Your task to perform on an android device: open app "LinkedIn" Image 0: 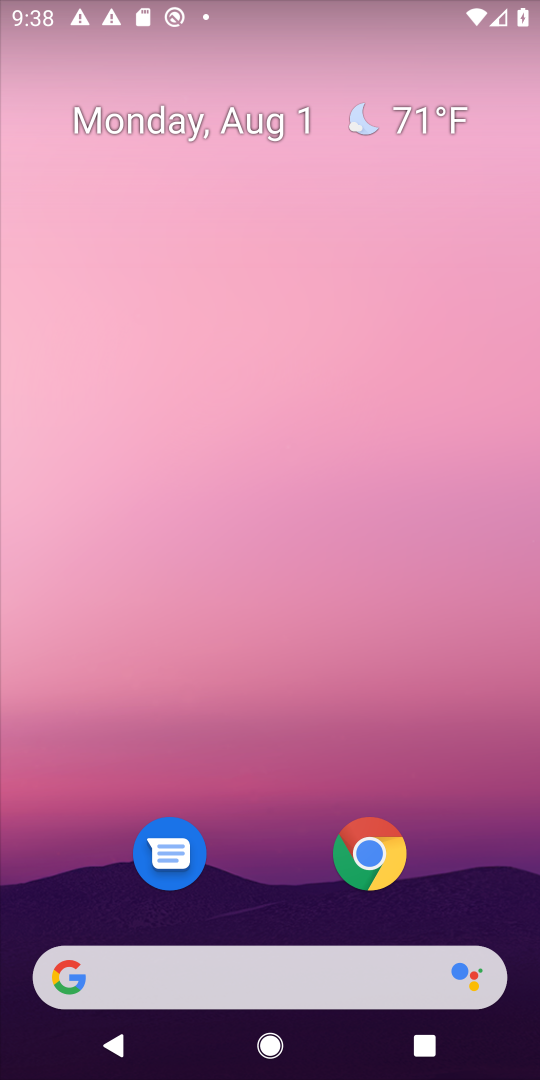
Step 0: drag from (264, 921) to (314, 294)
Your task to perform on an android device: open app "LinkedIn" Image 1: 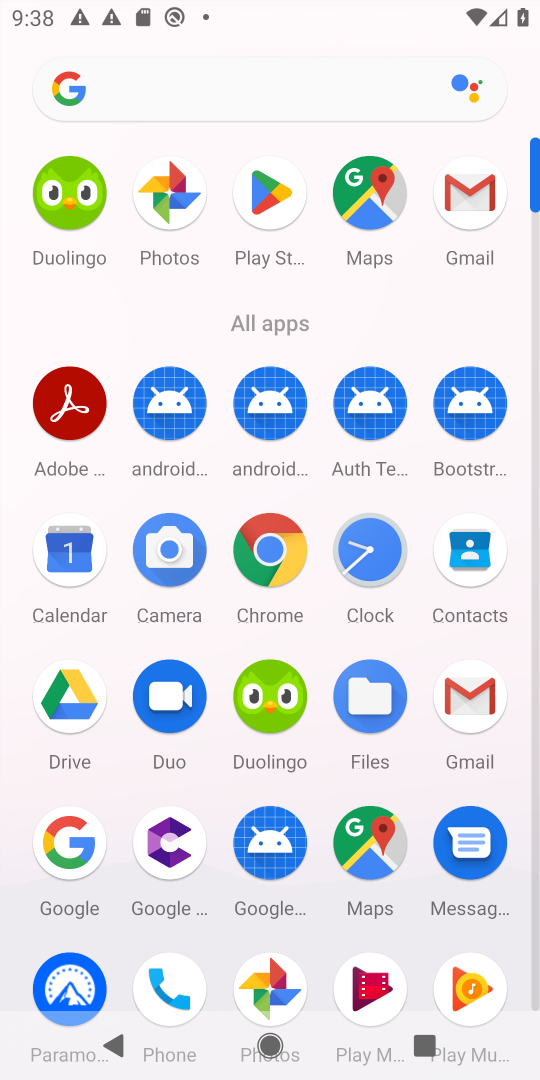
Step 1: drag from (327, 917) to (304, 410)
Your task to perform on an android device: open app "LinkedIn" Image 2: 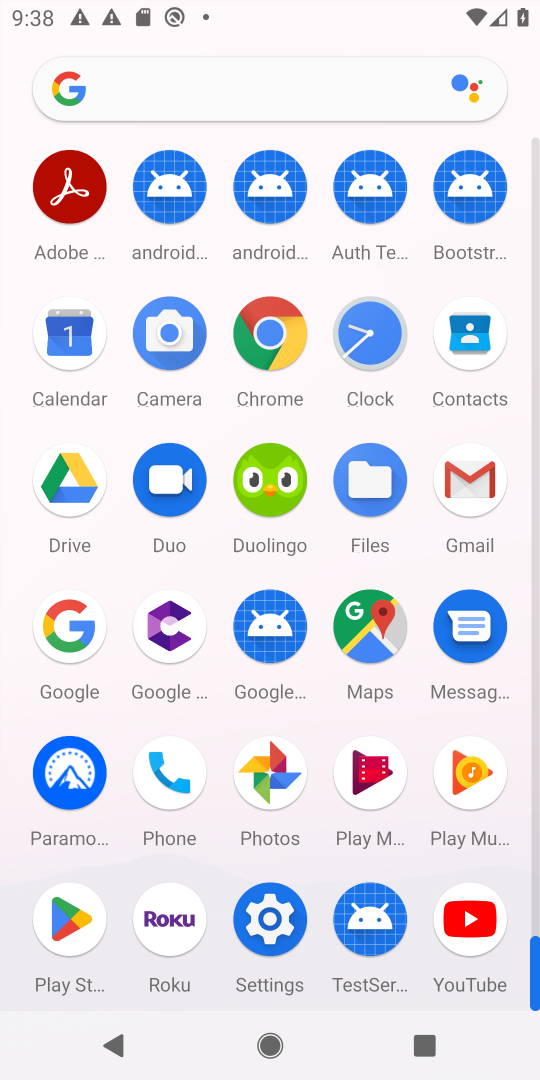
Step 2: click (74, 924)
Your task to perform on an android device: open app "LinkedIn" Image 3: 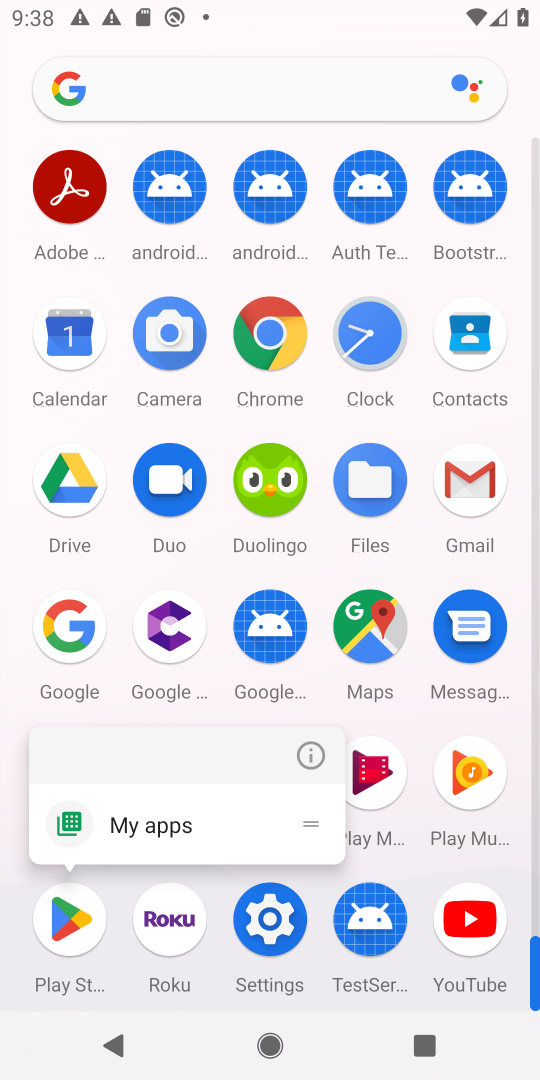
Step 3: click (307, 743)
Your task to perform on an android device: open app "LinkedIn" Image 4: 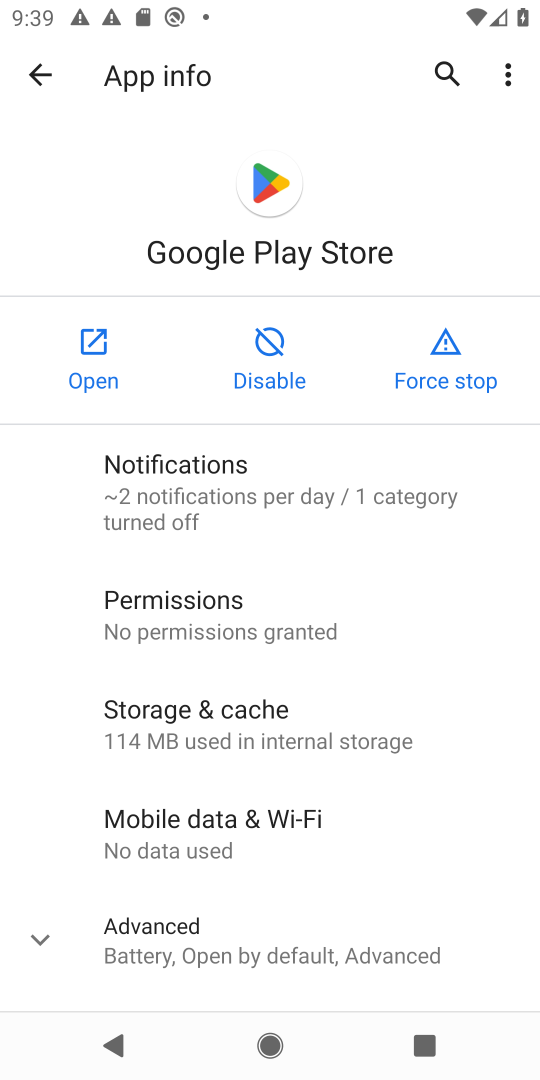
Step 4: click (78, 351)
Your task to perform on an android device: open app "LinkedIn" Image 5: 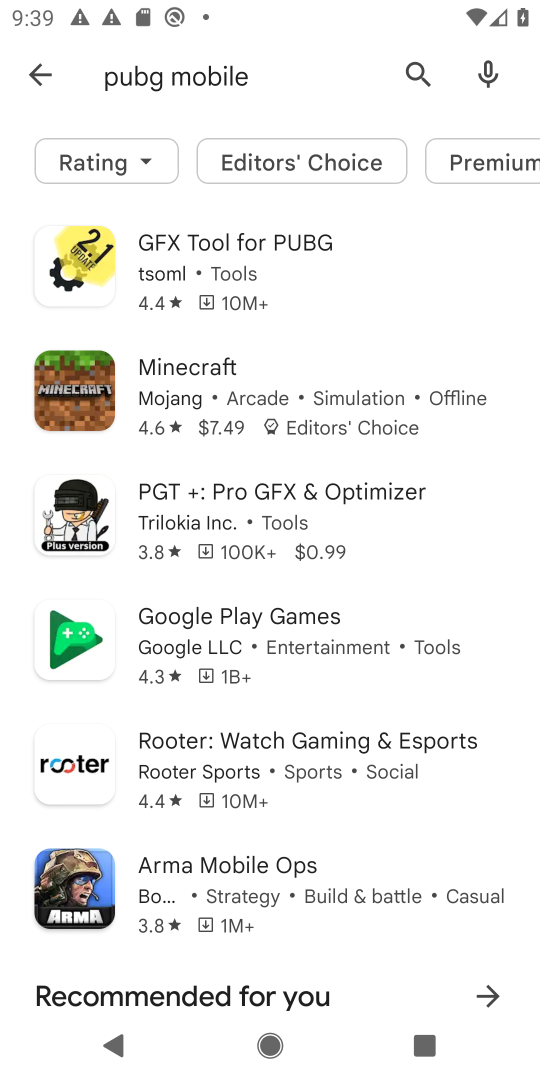
Step 5: click (416, 88)
Your task to perform on an android device: open app "LinkedIn" Image 6: 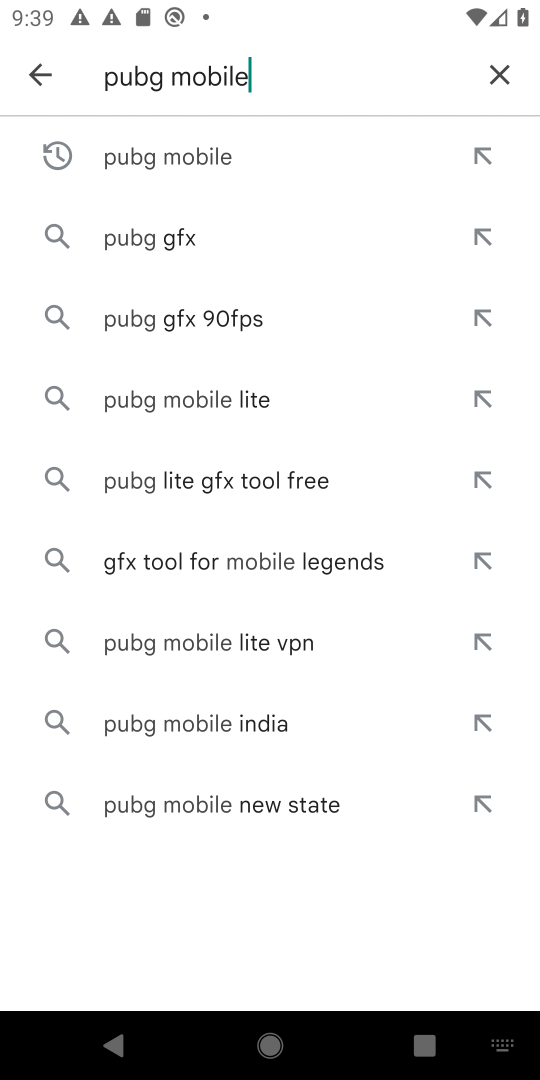
Step 6: click (492, 64)
Your task to perform on an android device: open app "LinkedIn" Image 7: 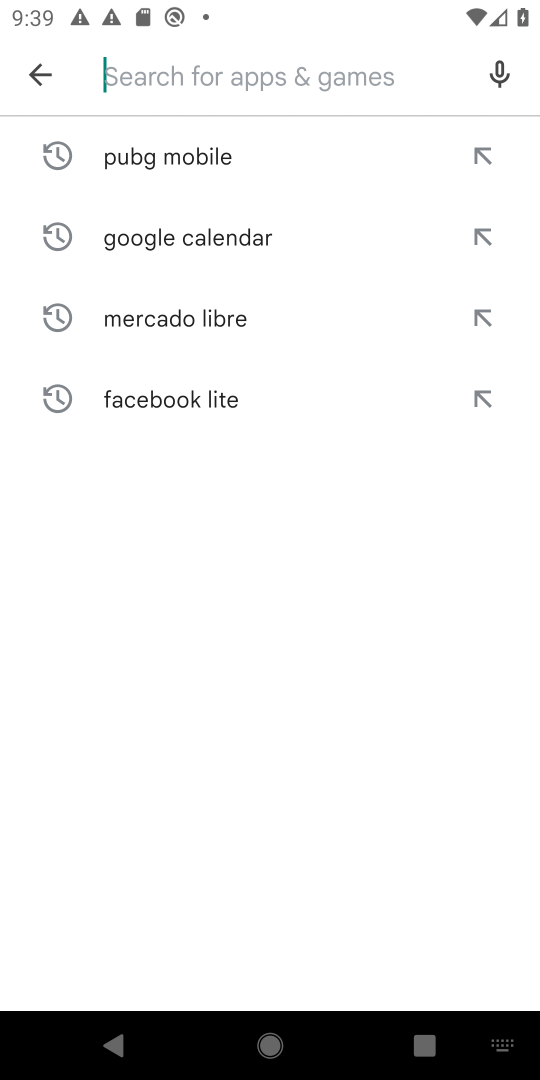
Step 7: type "LinkedIn"
Your task to perform on an android device: open app "LinkedIn" Image 8: 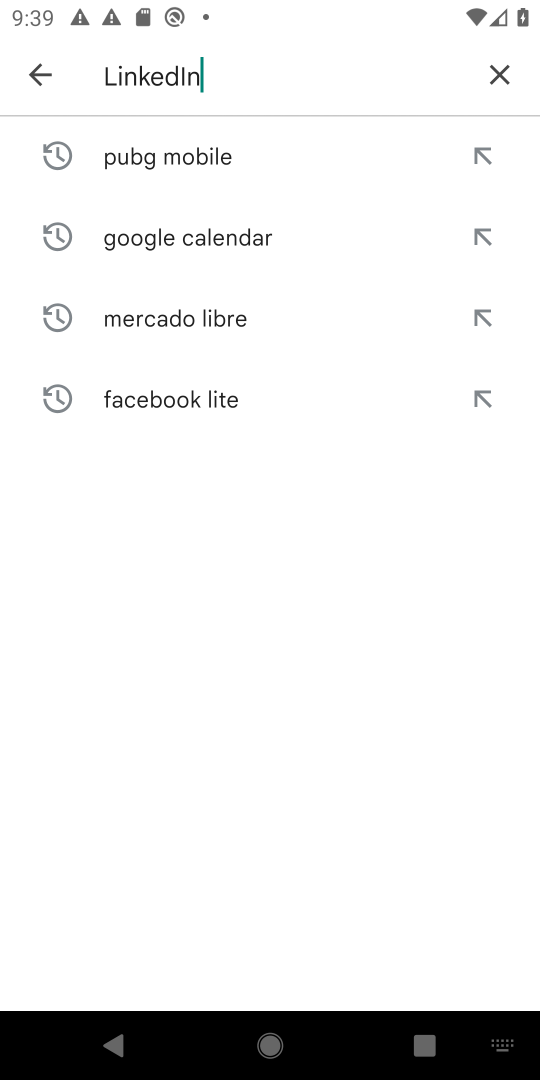
Step 8: type ""
Your task to perform on an android device: open app "LinkedIn" Image 9: 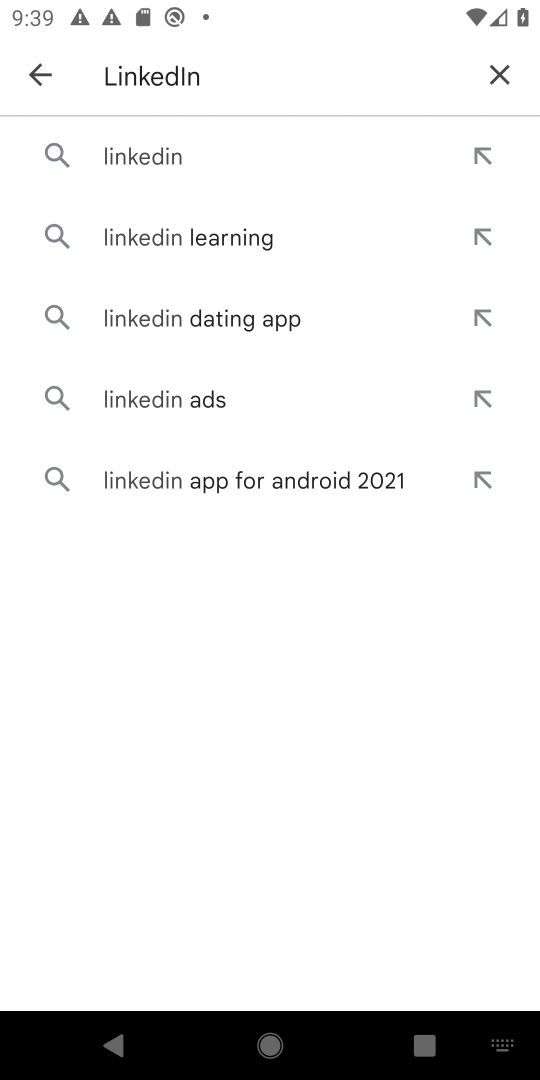
Step 9: click (175, 147)
Your task to perform on an android device: open app "LinkedIn" Image 10: 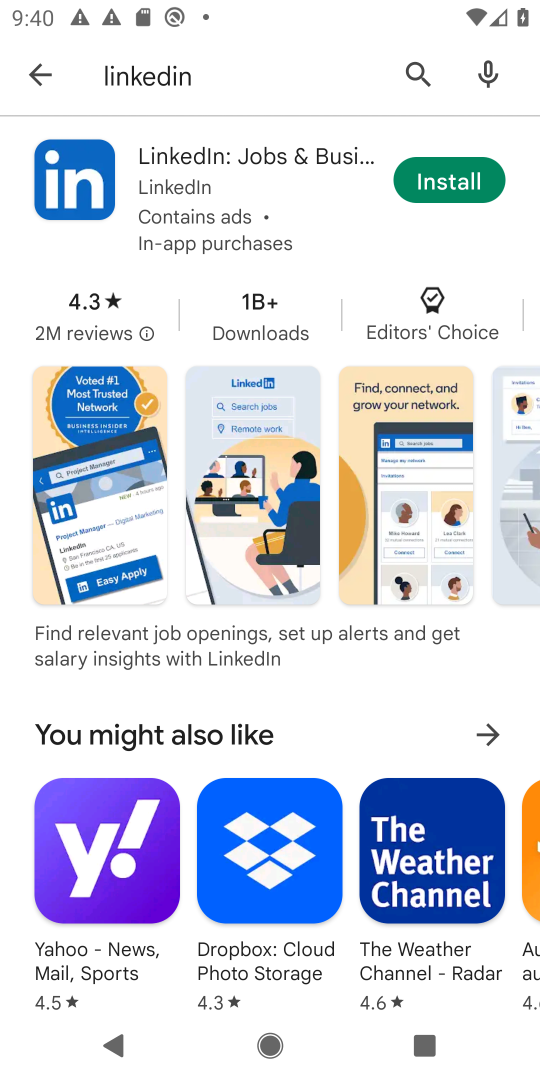
Step 10: click (244, 171)
Your task to perform on an android device: open app "LinkedIn" Image 11: 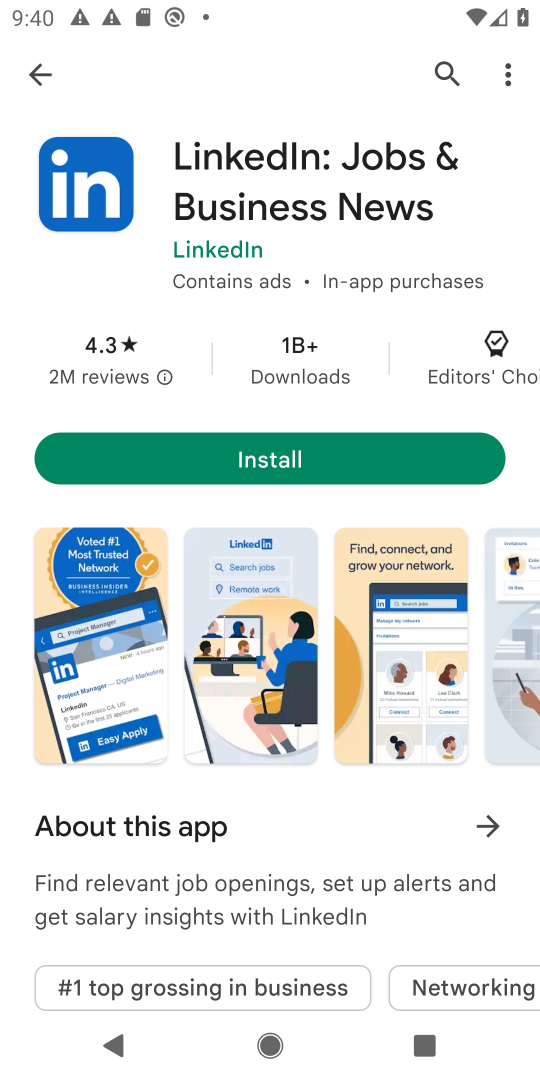
Step 11: drag from (321, 194) to (385, 806)
Your task to perform on an android device: open app "LinkedIn" Image 12: 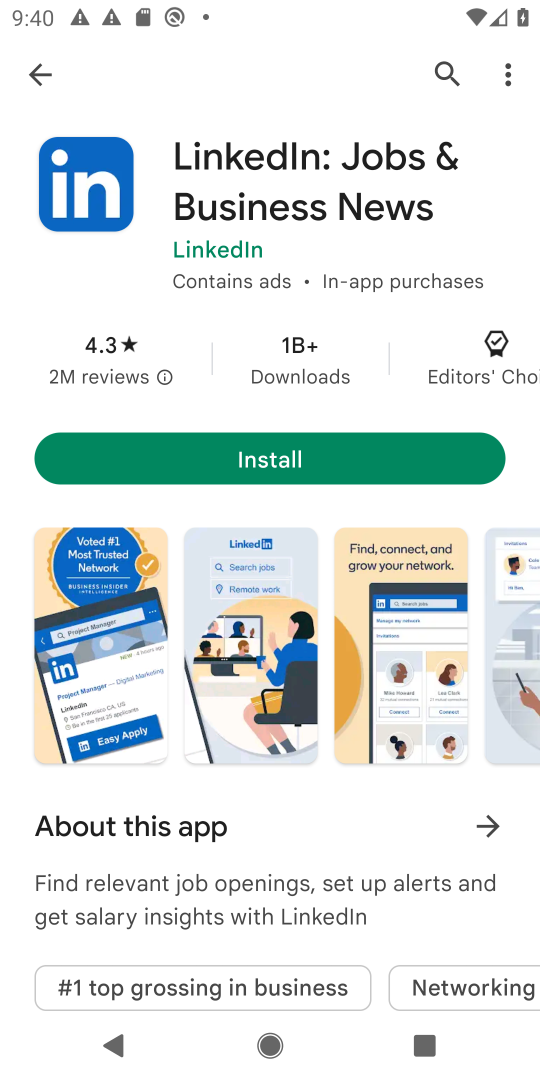
Step 12: drag from (274, 864) to (298, 278)
Your task to perform on an android device: open app "LinkedIn" Image 13: 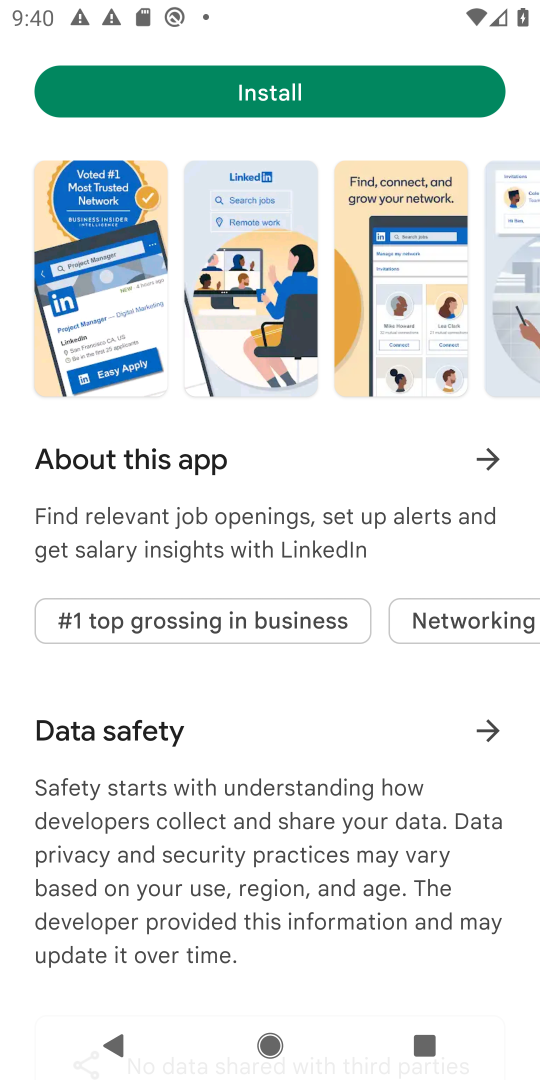
Step 13: drag from (302, 187) to (310, 912)
Your task to perform on an android device: open app "LinkedIn" Image 14: 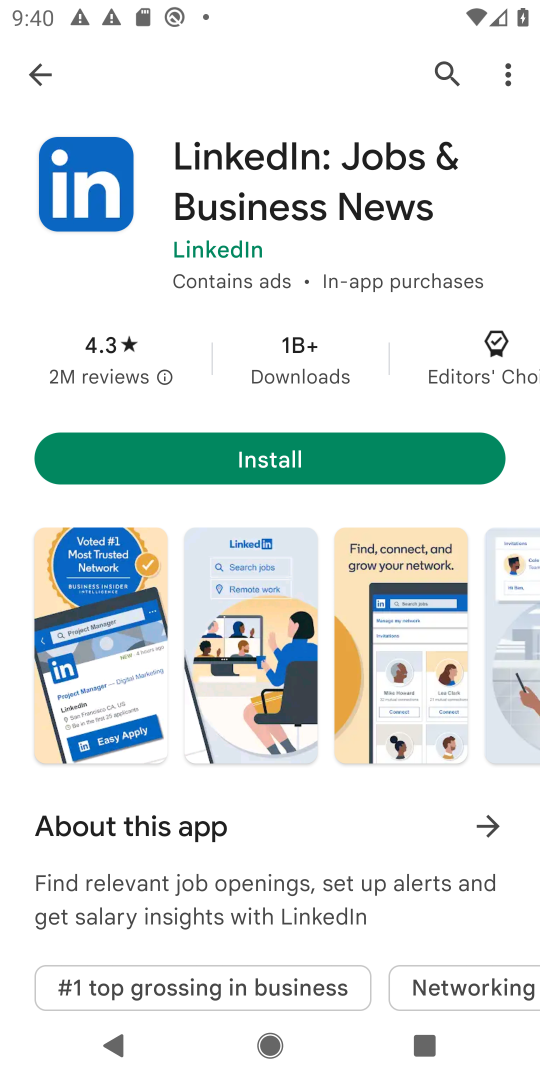
Step 14: drag from (325, 221) to (430, 1001)
Your task to perform on an android device: open app "LinkedIn" Image 15: 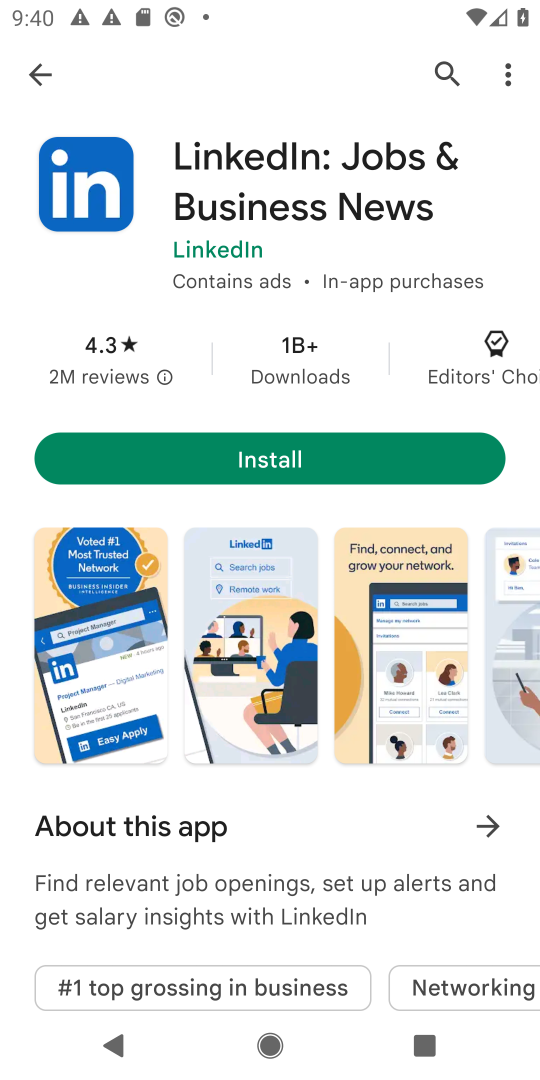
Step 15: drag from (344, 255) to (366, 808)
Your task to perform on an android device: open app "LinkedIn" Image 16: 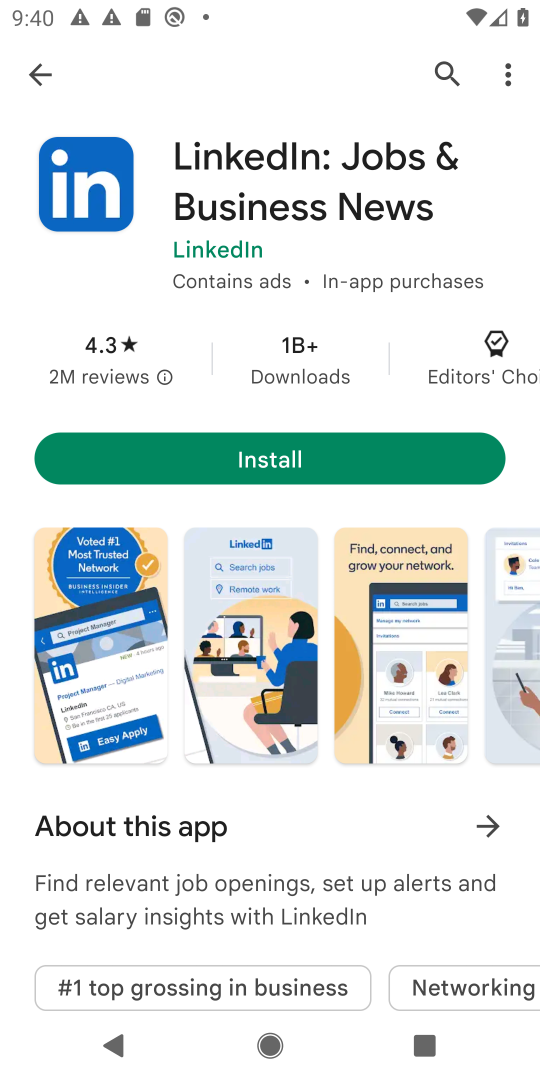
Step 16: drag from (294, 379) to (379, 1041)
Your task to perform on an android device: open app "LinkedIn" Image 17: 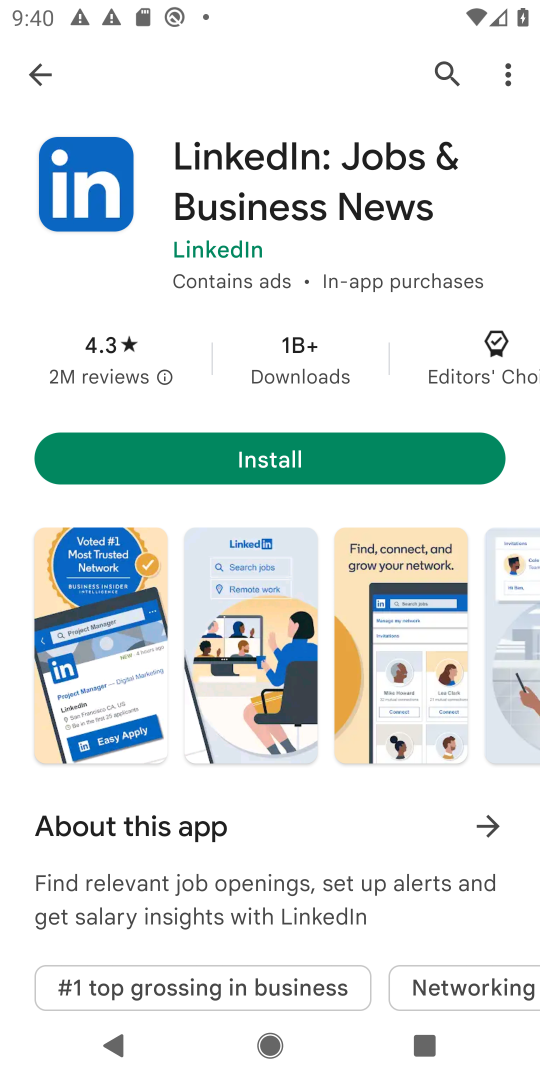
Step 17: drag from (337, 220) to (409, 1069)
Your task to perform on an android device: open app "LinkedIn" Image 18: 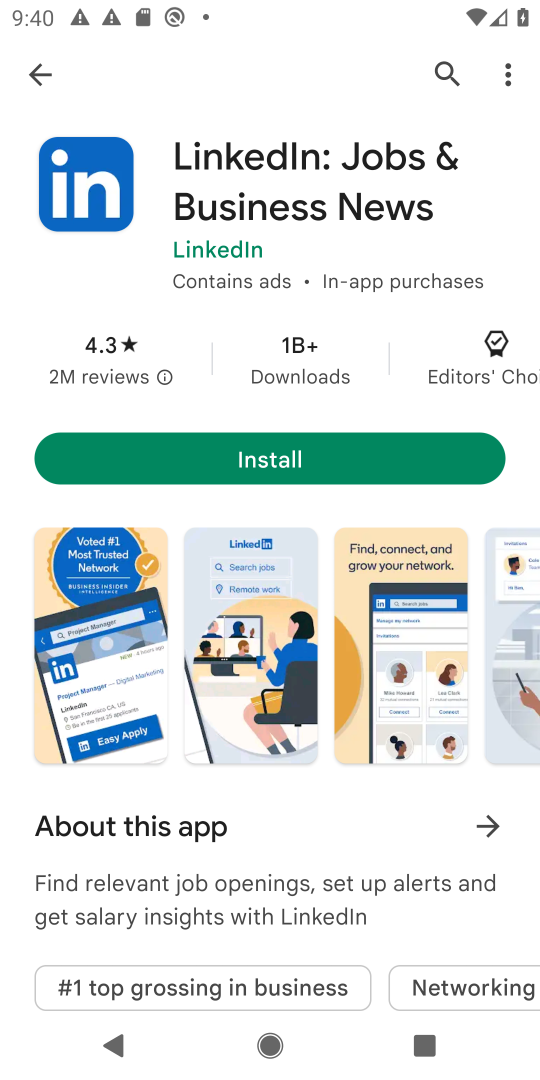
Step 18: drag from (347, 182) to (456, 1053)
Your task to perform on an android device: open app "LinkedIn" Image 19: 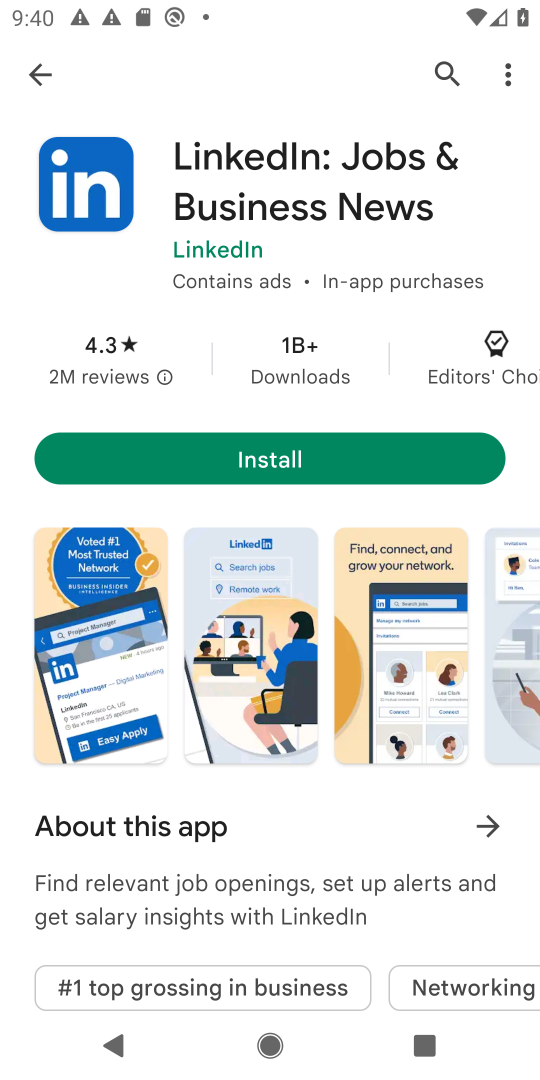
Step 19: drag from (347, 226) to (379, 757)
Your task to perform on an android device: open app "LinkedIn" Image 20: 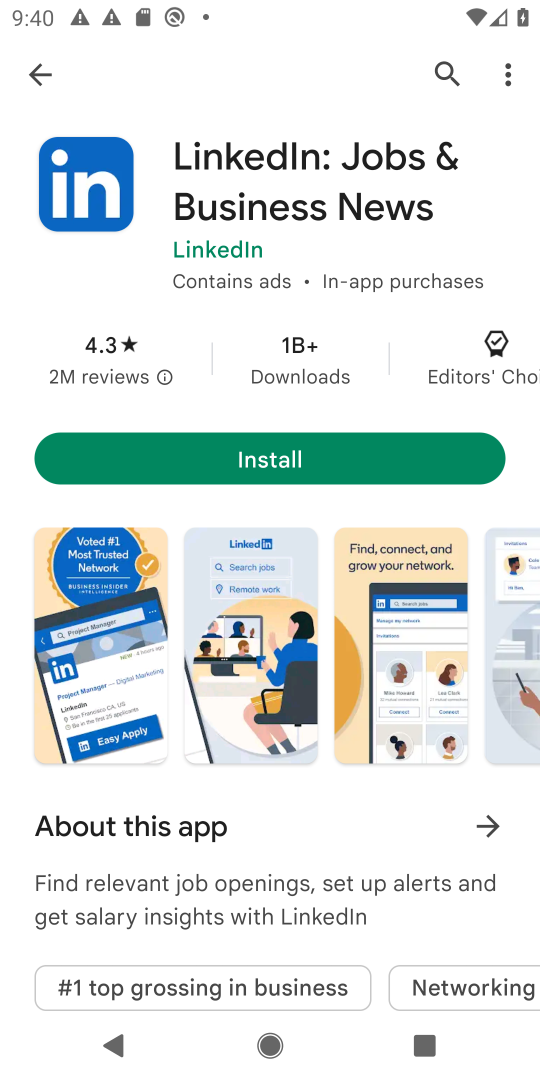
Step 20: drag from (358, 663) to (369, 832)
Your task to perform on an android device: open app "LinkedIn" Image 21: 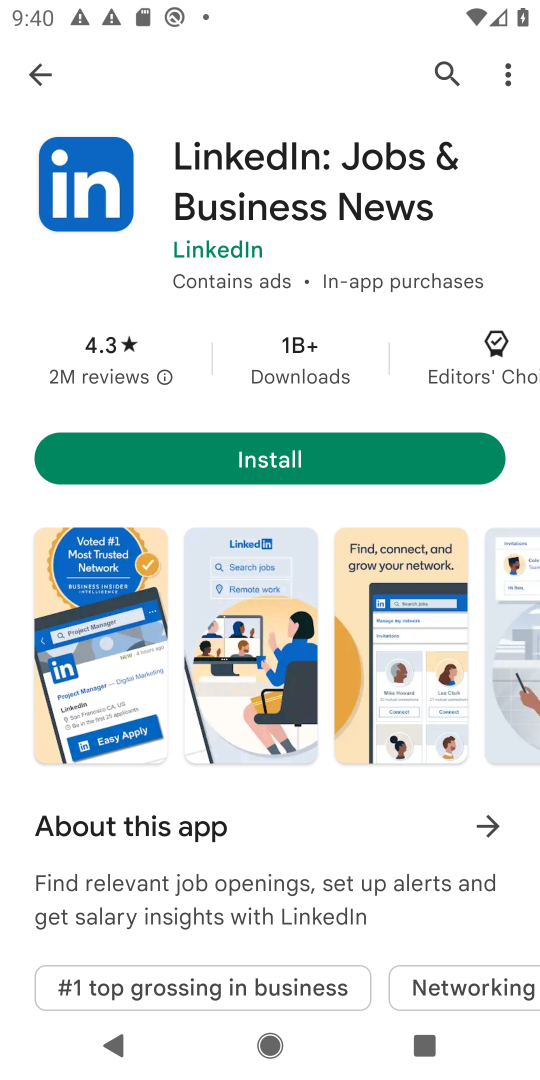
Step 21: drag from (335, 176) to (309, 1078)
Your task to perform on an android device: open app "LinkedIn" Image 22: 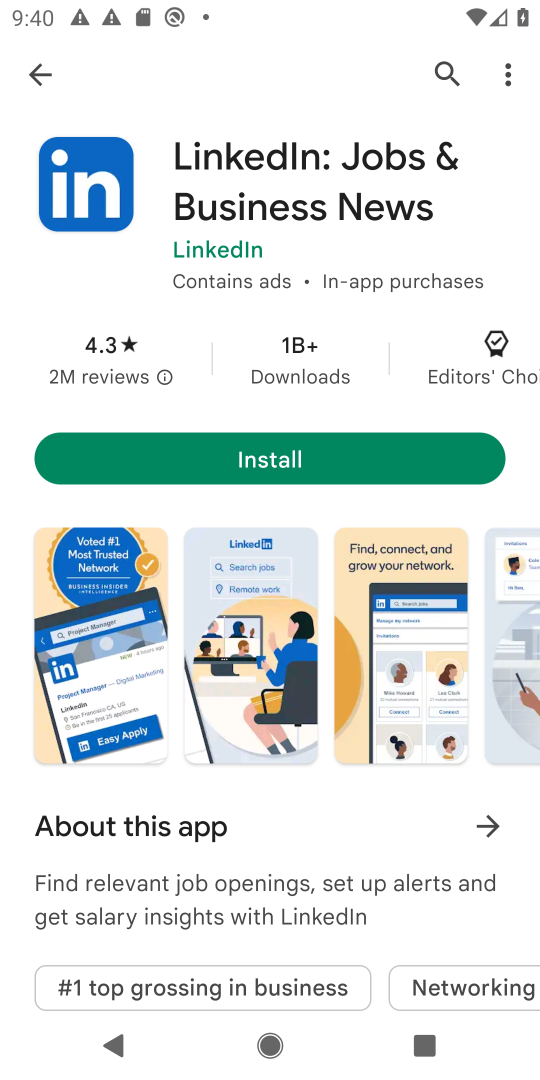
Step 22: click (453, 70)
Your task to perform on an android device: open app "LinkedIn" Image 23: 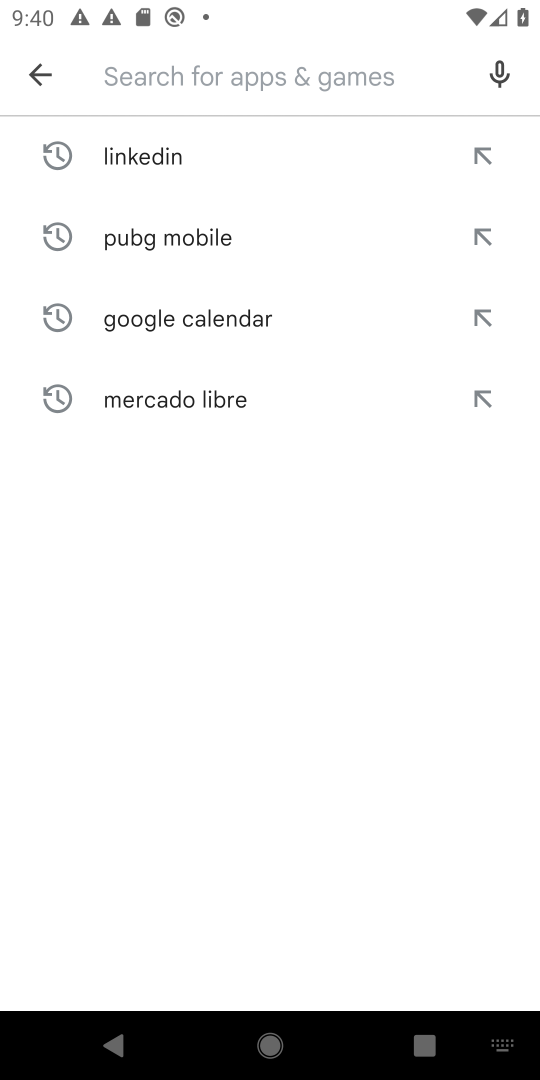
Step 23: type "LinkedIn"
Your task to perform on an android device: open app "LinkedIn" Image 24: 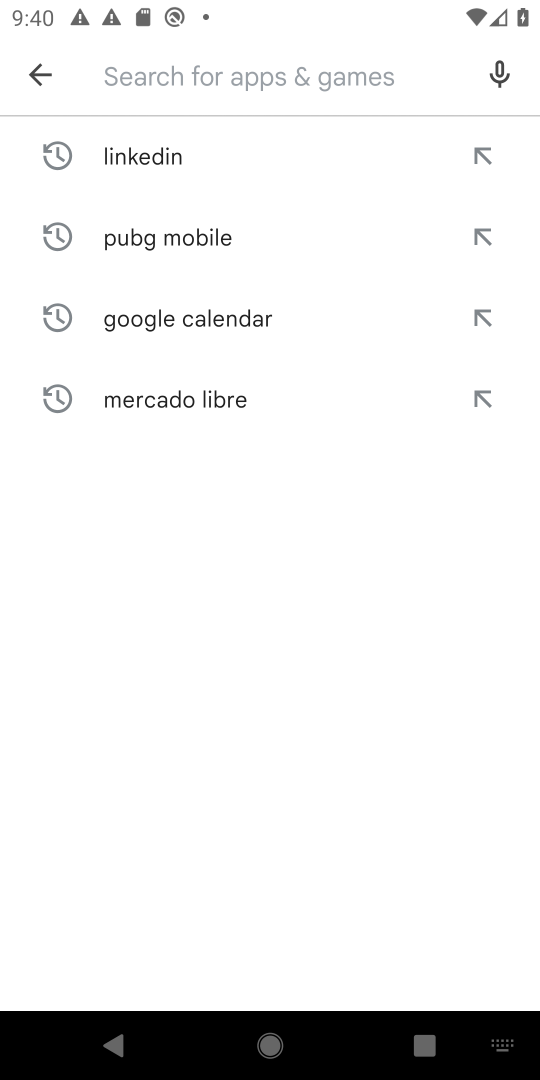
Step 24: click (234, 153)
Your task to perform on an android device: open app "LinkedIn" Image 25: 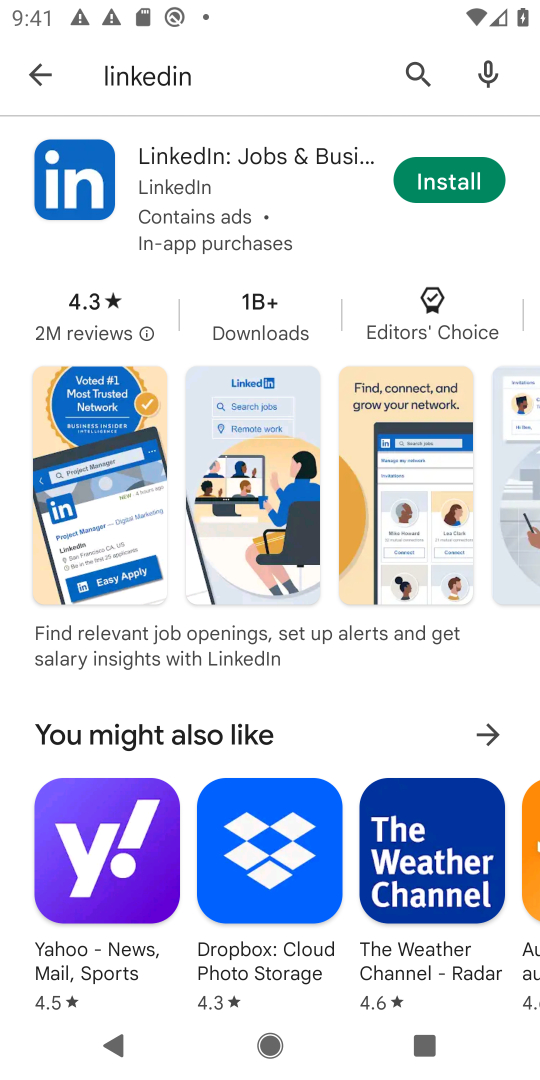
Step 25: click (223, 151)
Your task to perform on an android device: open app "LinkedIn" Image 26: 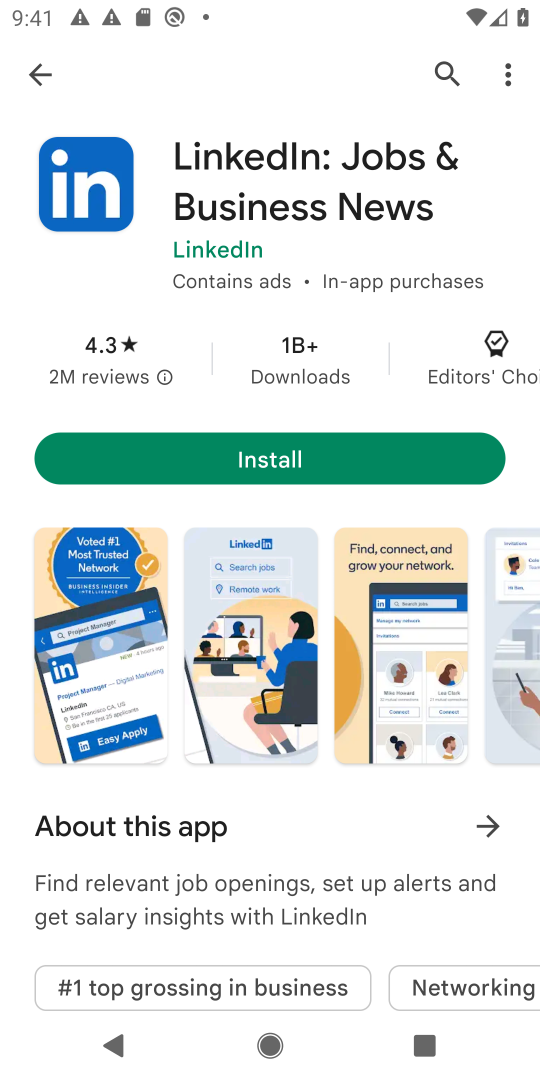
Step 26: task complete